Your task to perform on an android device: Do I have any events this weekend? Image 0: 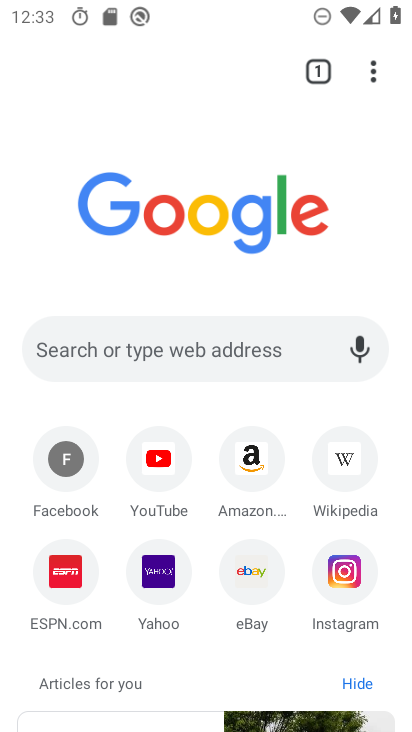
Step 0: press home button
Your task to perform on an android device: Do I have any events this weekend? Image 1: 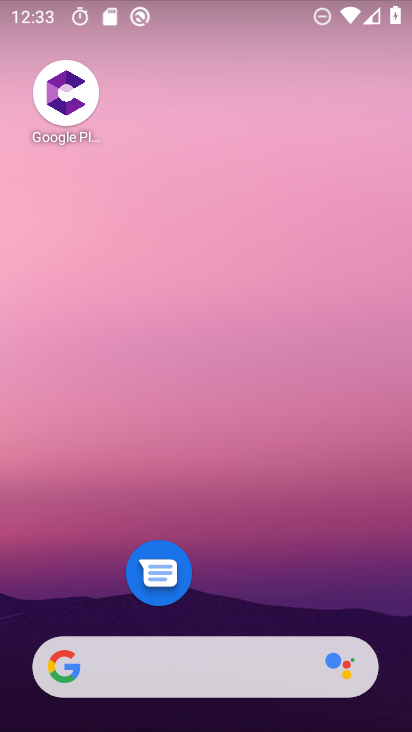
Step 1: drag from (215, 613) to (264, 91)
Your task to perform on an android device: Do I have any events this weekend? Image 2: 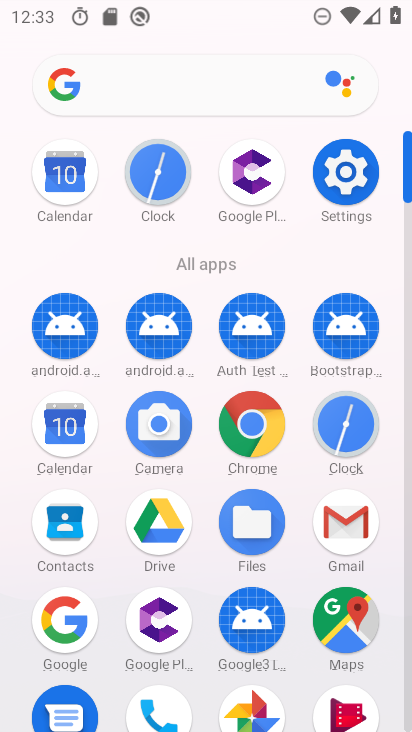
Step 2: click (75, 444)
Your task to perform on an android device: Do I have any events this weekend? Image 3: 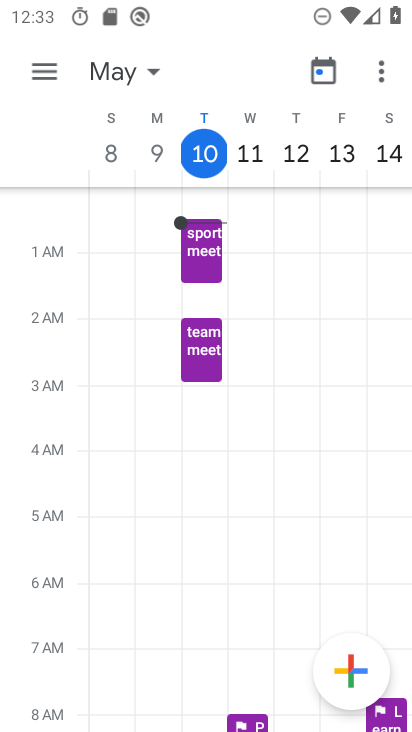
Step 3: task complete